Your task to perform on an android device: Search for amazon basics triple a on ebay, select the first entry, add it to the cart, then select checkout. Image 0: 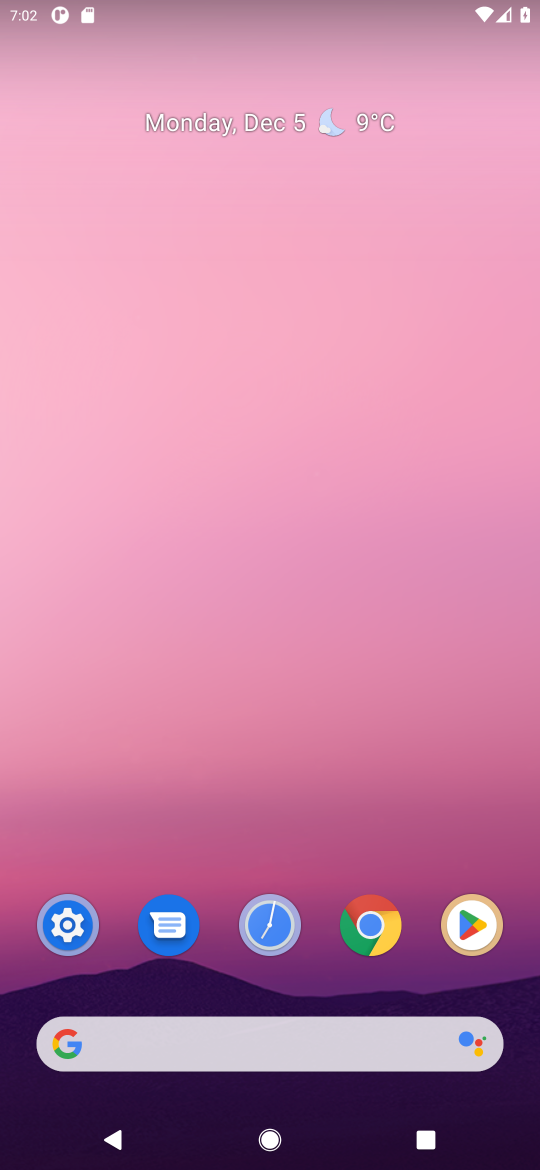
Step 0: click (376, 936)
Your task to perform on an android device: Search for amazon basics triple a on ebay, select the first entry, add it to the cart, then select checkout. Image 1: 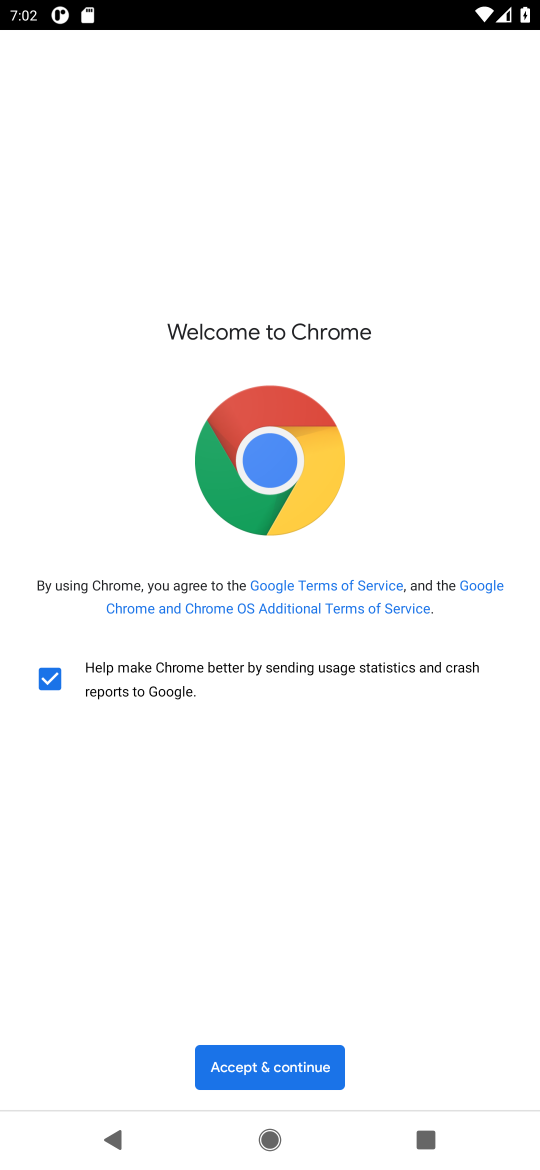
Step 1: click (291, 1080)
Your task to perform on an android device: Search for amazon basics triple a on ebay, select the first entry, add it to the cart, then select checkout. Image 2: 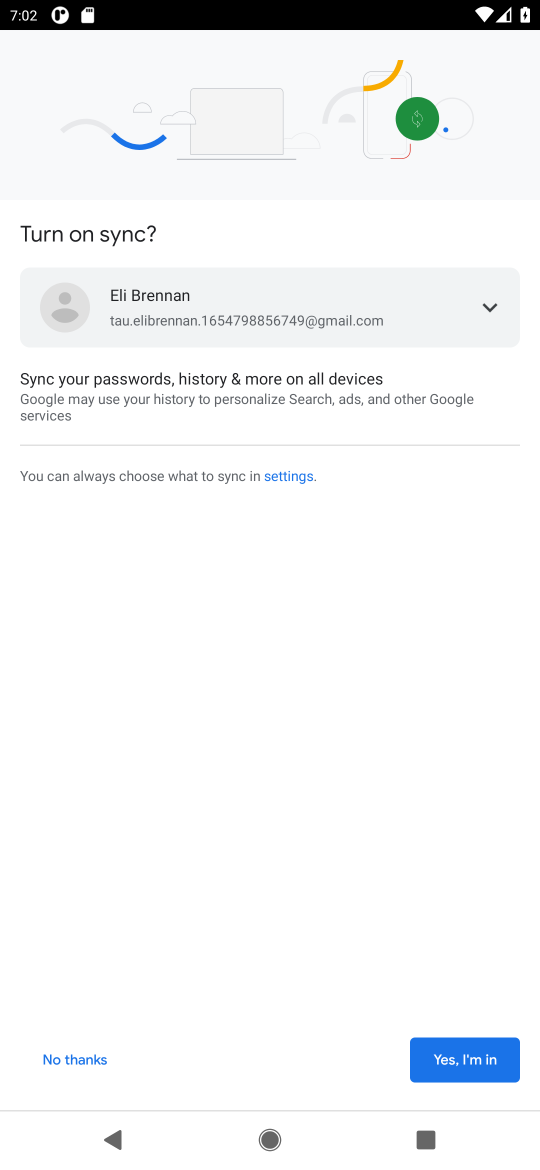
Step 2: click (100, 1060)
Your task to perform on an android device: Search for amazon basics triple a on ebay, select the first entry, add it to the cart, then select checkout. Image 3: 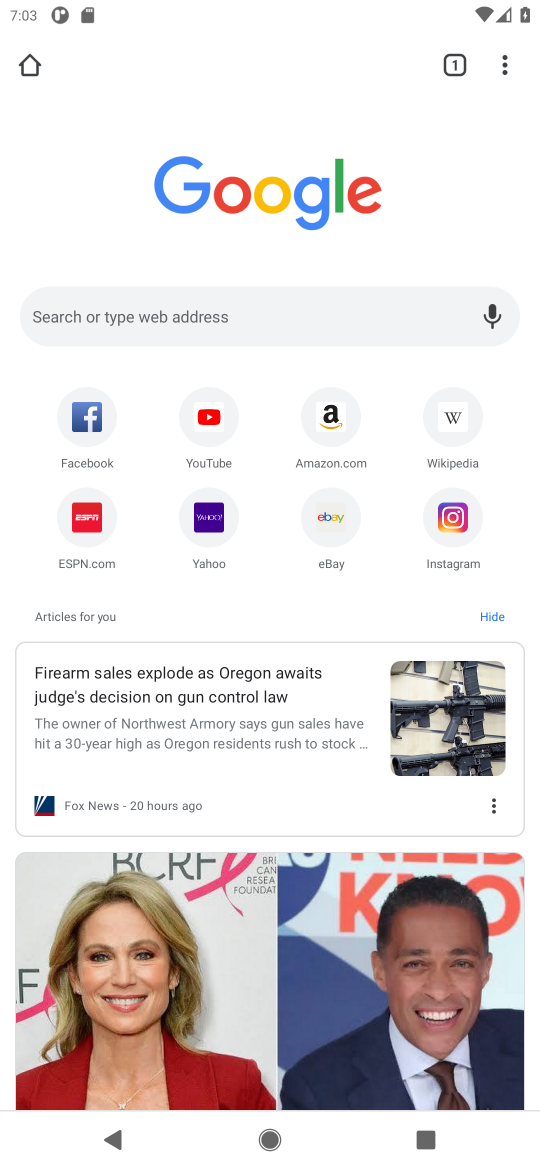
Step 3: click (324, 525)
Your task to perform on an android device: Search for amazon basics triple a on ebay, select the first entry, add it to the cart, then select checkout. Image 4: 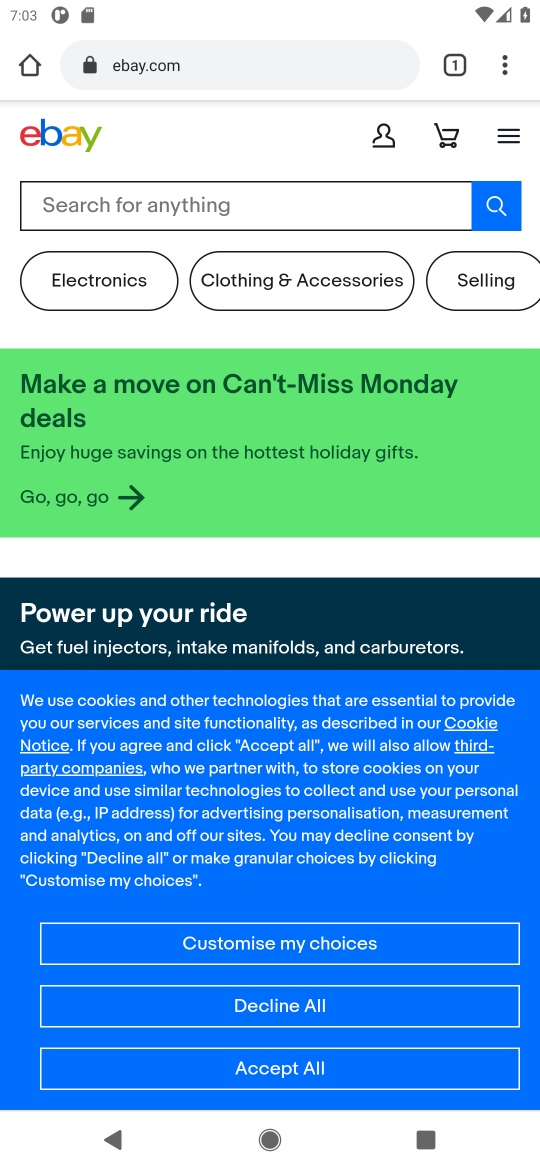
Step 4: click (87, 197)
Your task to perform on an android device: Search for amazon basics triple a on ebay, select the first entry, add it to the cart, then select checkout. Image 5: 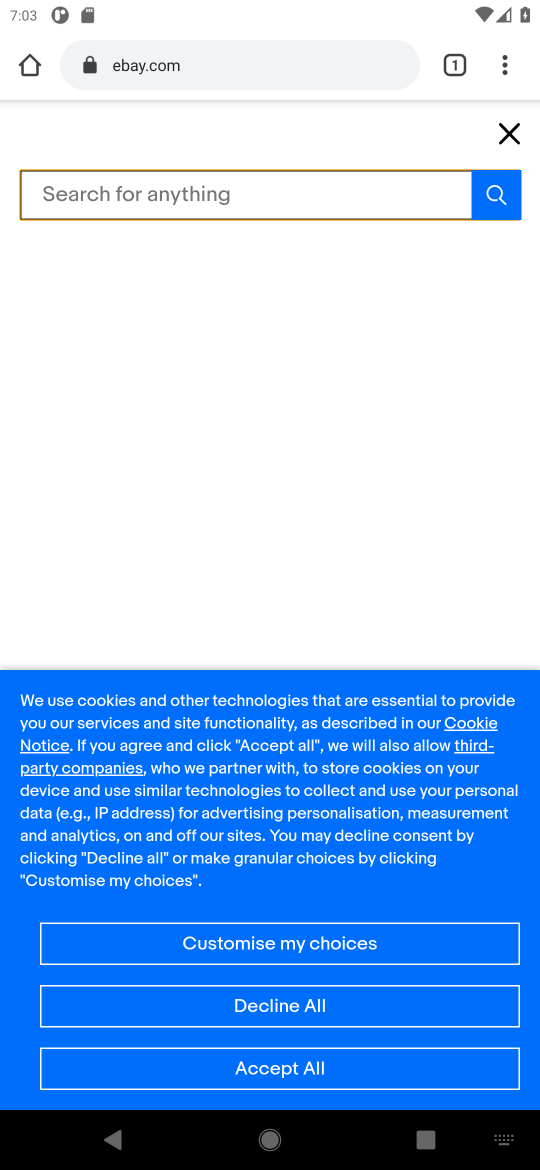
Step 5: type "amazon basics triple a"
Your task to perform on an android device: Search for amazon basics triple a on ebay, select the first entry, add it to the cart, then select checkout. Image 6: 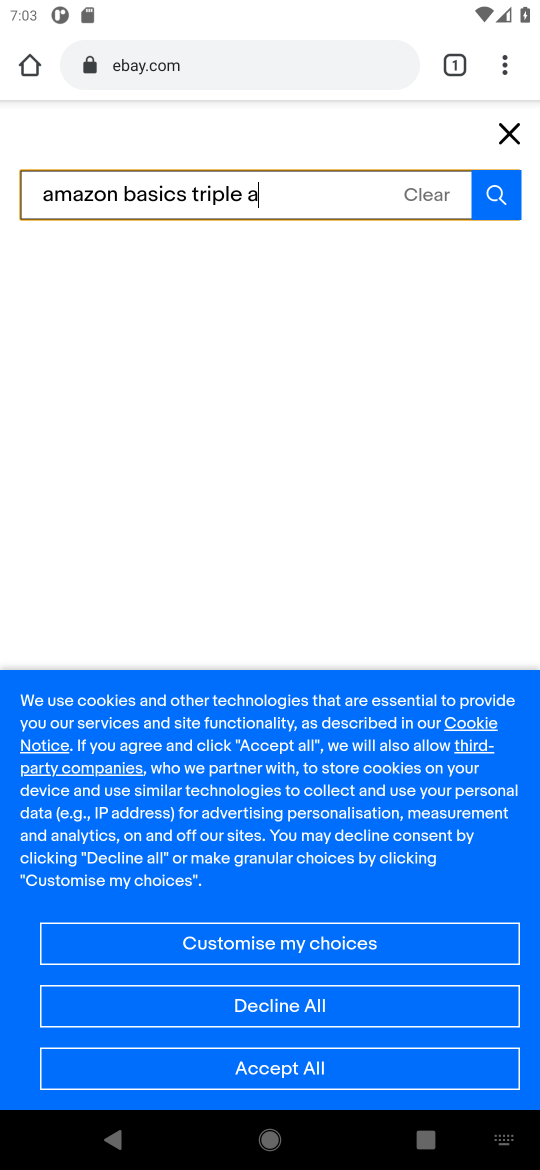
Step 6: click (490, 206)
Your task to perform on an android device: Search for amazon basics triple a on ebay, select the first entry, add it to the cart, then select checkout. Image 7: 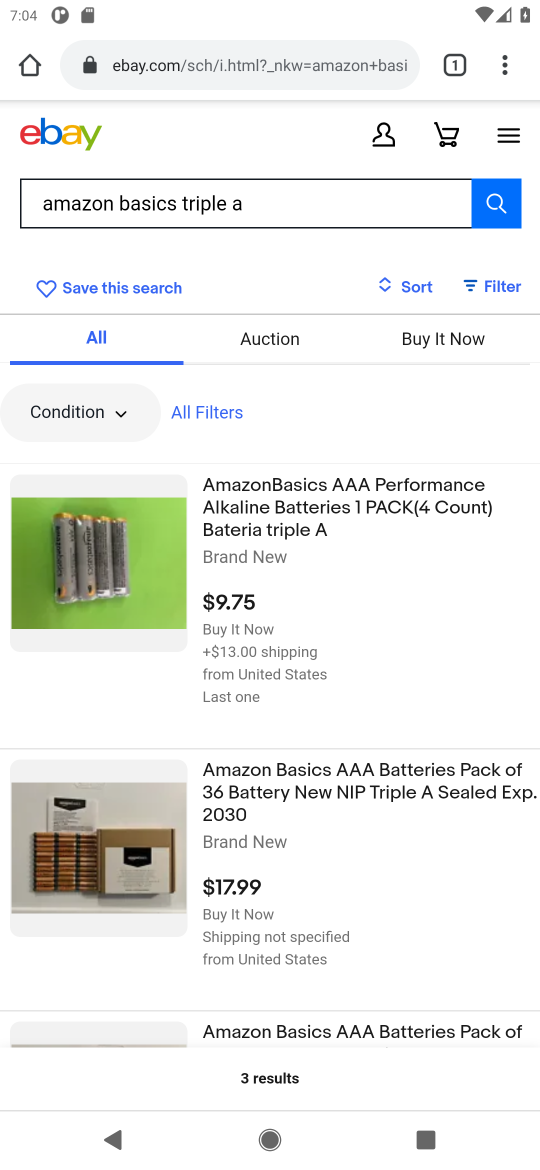
Step 7: click (226, 504)
Your task to perform on an android device: Search for amazon basics triple a on ebay, select the first entry, add it to the cart, then select checkout. Image 8: 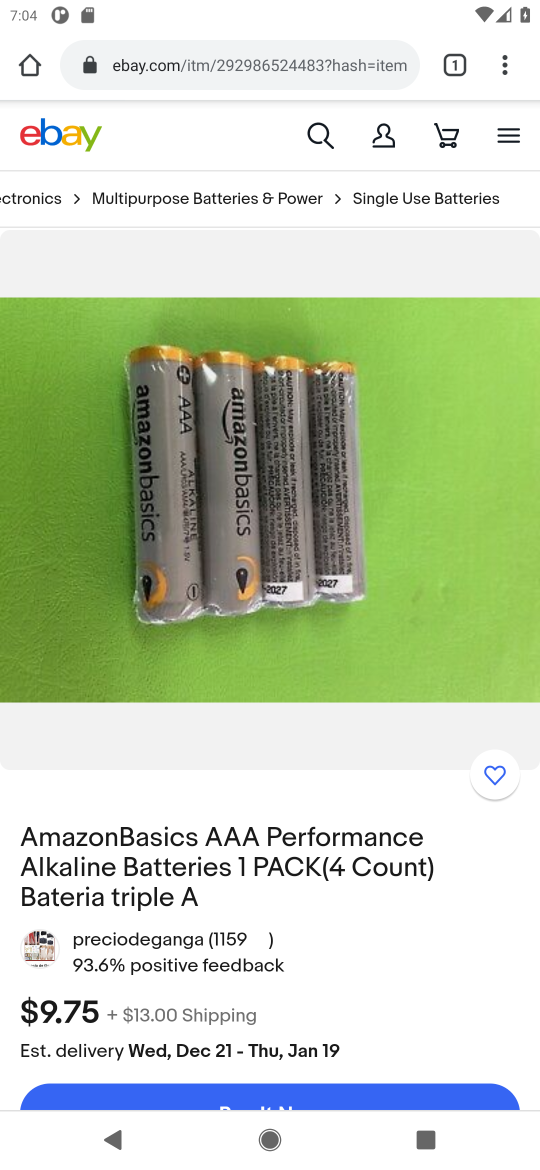
Step 8: drag from (264, 839) to (243, 405)
Your task to perform on an android device: Search for amazon basics triple a on ebay, select the first entry, add it to the cart, then select checkout. Image 9: 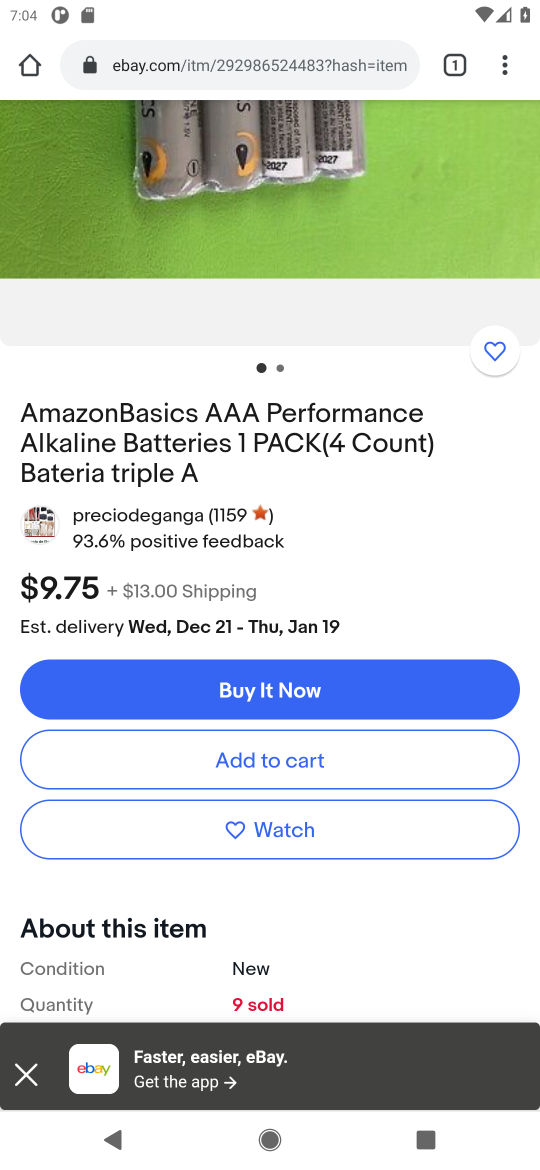
Step 9: click (240, 763)
Your task to perform on an android device: Search for amazon basics triple a on ebay, select the first entry, add it to the cart, then select checkout. Image 10: 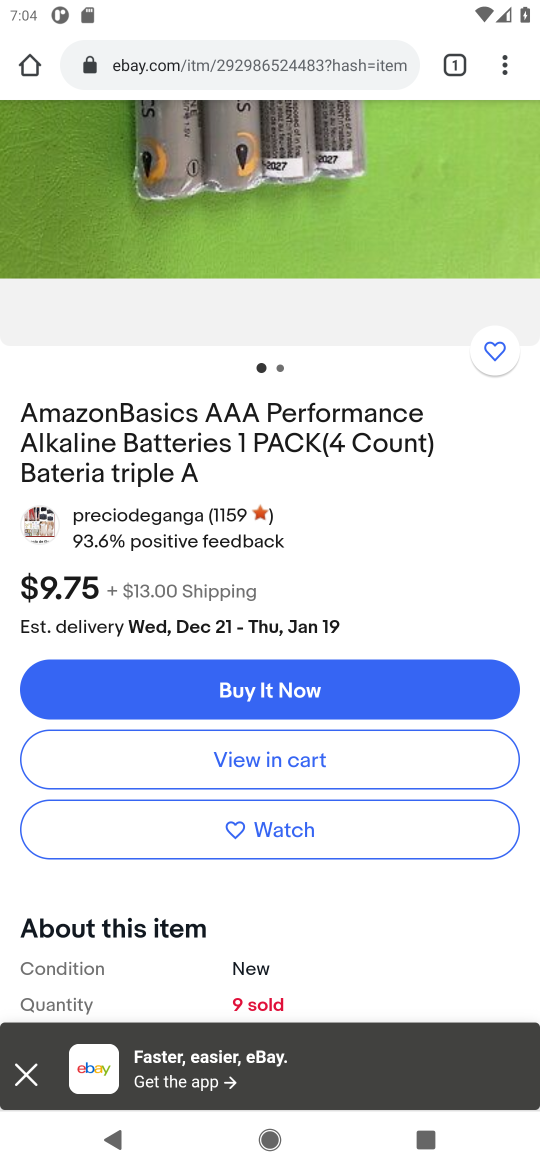
Step 10: click (258, 759)
Your task to perform on an android device: Search for amazon basics triple a on ebay, select the first entry, add it to the cart, then select checkout. Image 11: 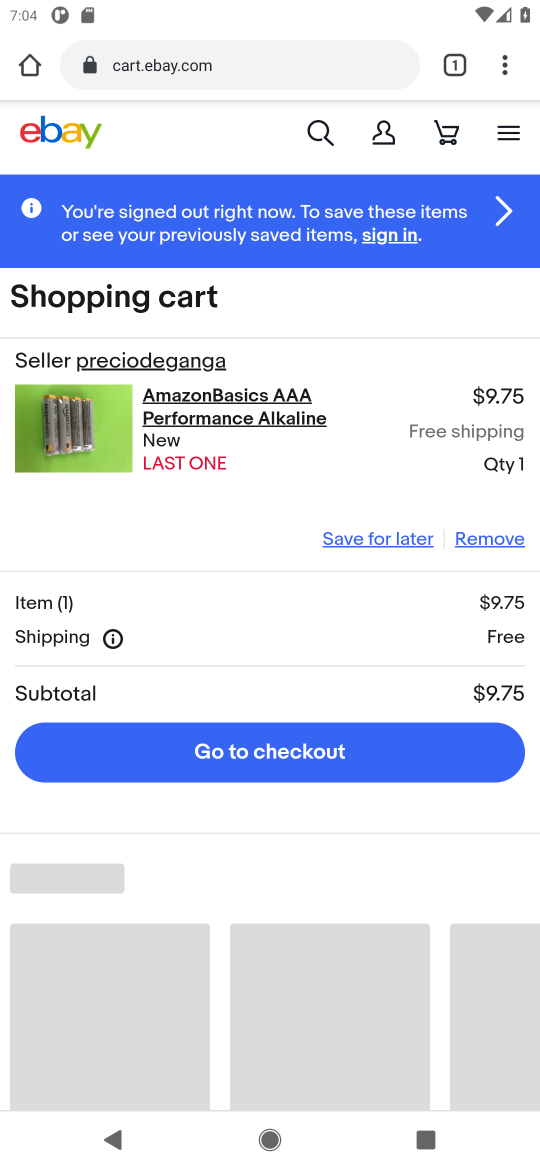
Step 11: click (258, 759)
Your task to perform on an android device: Search for amazon basics triple a on ebay, select the first entry, add it to the cart, then select checkout. Image 12: 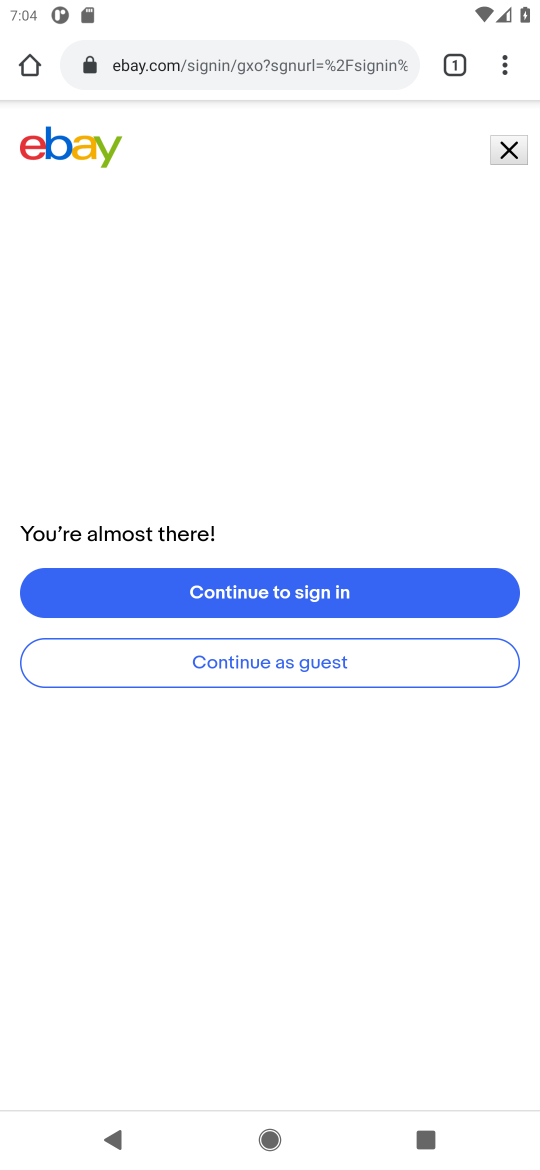
Step 12: task complete